Your task to perform on an android device: Open Android settings Image 0: 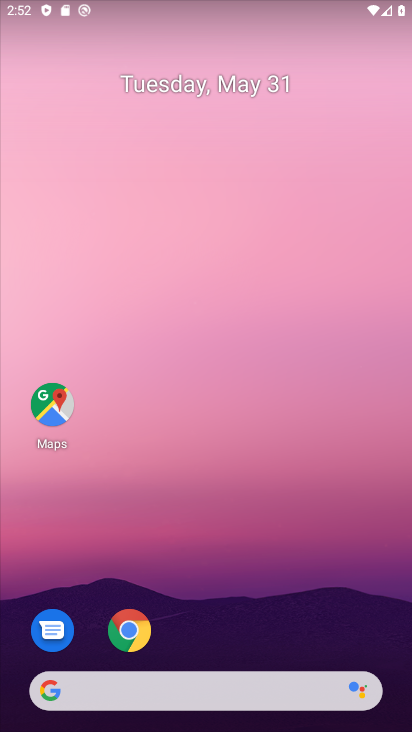
Step 0: drag from (175, 622) to (198, 161)
Your task to perform on an android device: Open Android settings Image 1: 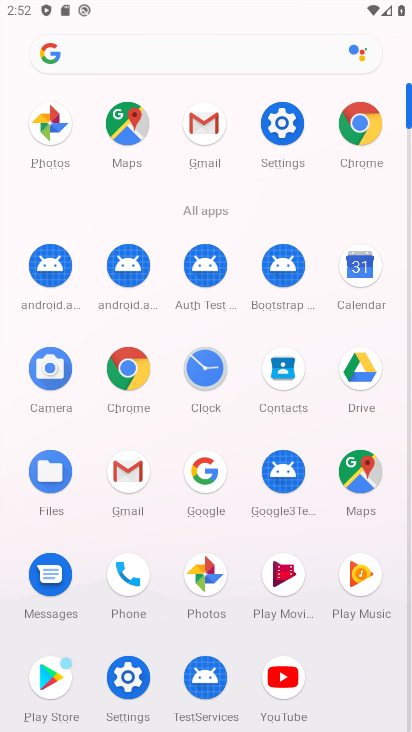
Step 1: click (289, 105)
Your task to perform on an android device: Open Android settings Image 2: 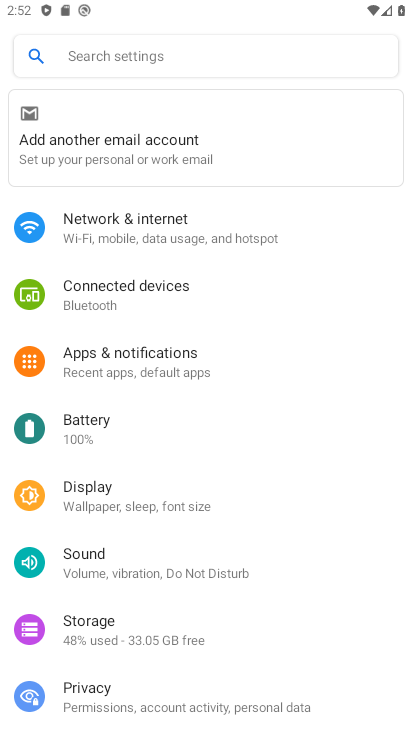
Step 2: task complete